Your task to perform on an android device: find which apps use the phone's location Image 0: 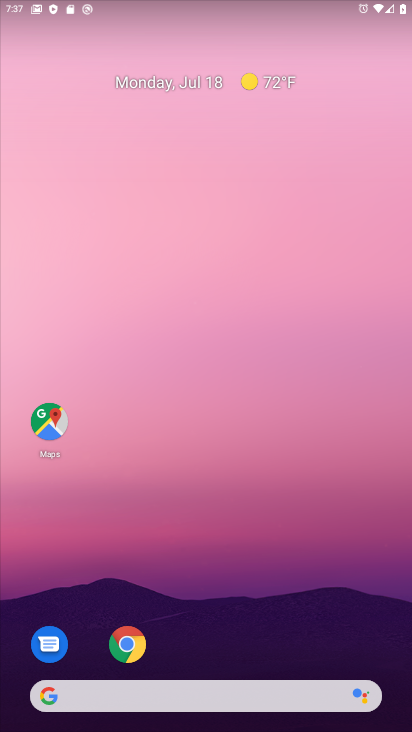
Step 0: drag from (336, 648) to (230, 51)
Your task to perform on an android device: find which apps use the phone's location Image 1: 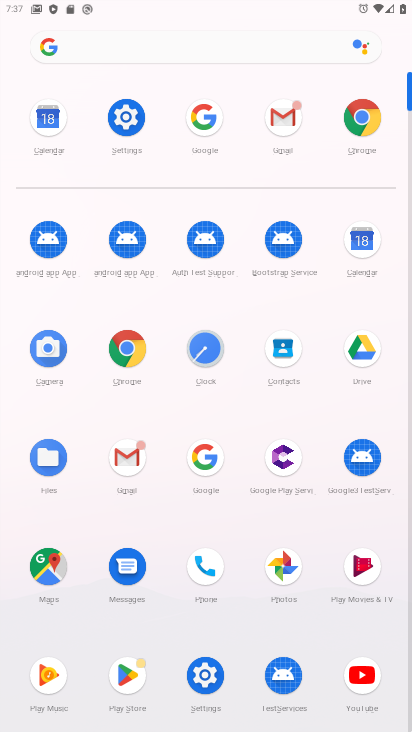
Step 1: click (206, 669)
Your task to perform on an android device: find which apps use the phone's location Image 2: 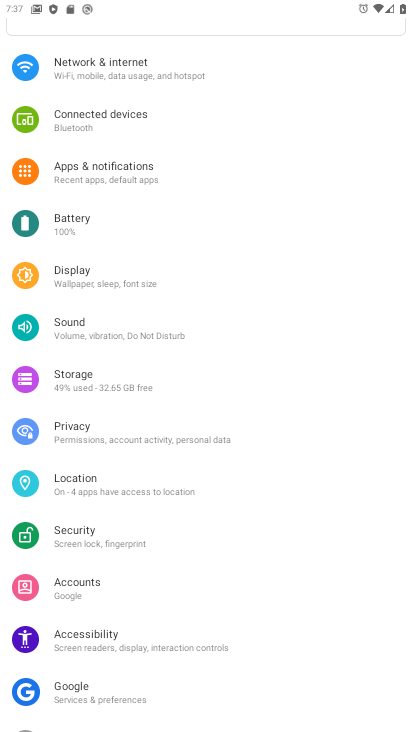
Step 2: click (98, 481)
Your task to perform on an android device: find which apps use the phone's location Image 3: 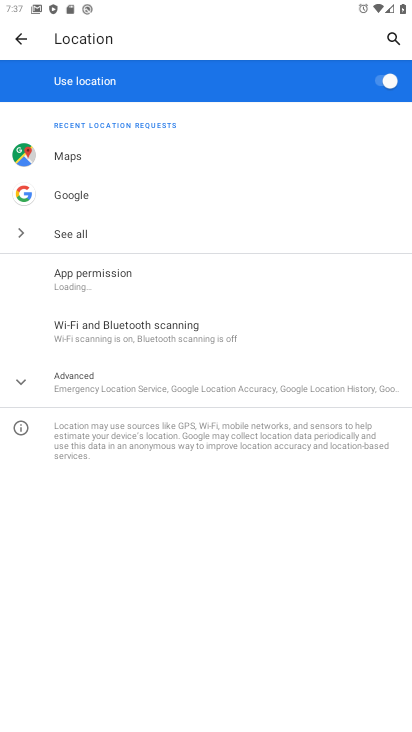
Step 3: click (84, 288)
Your task to perform on an android device: find which apps use the phone's location Image 4: 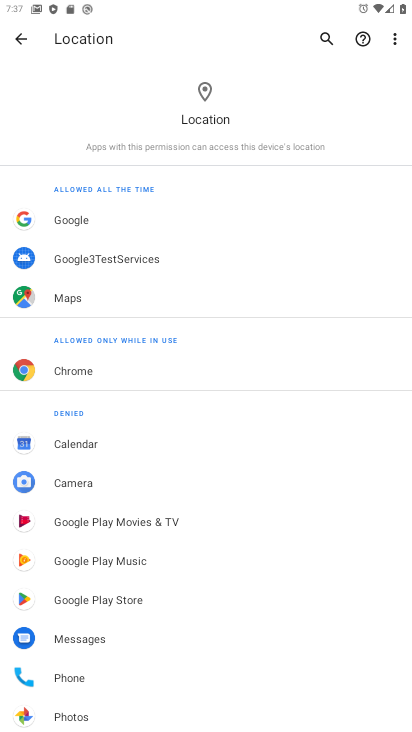
Step 4: click (84, 685)
Your task to perform on an android device: find which apps use the phone's location Image 5: 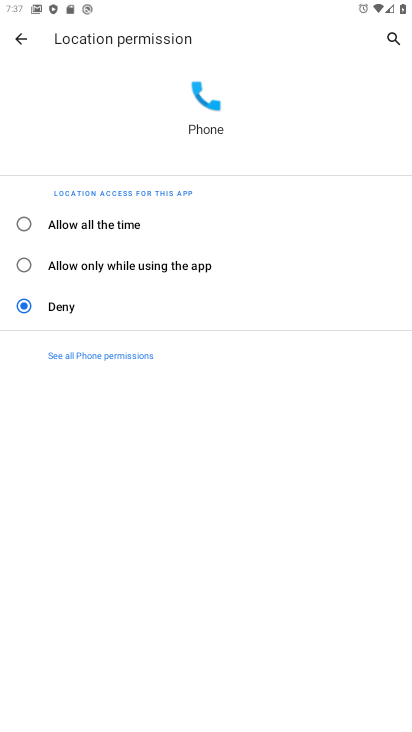
Step 5: click (26, 227)
Your task to perform on an android device: find which apps use the phone's location Image 6: 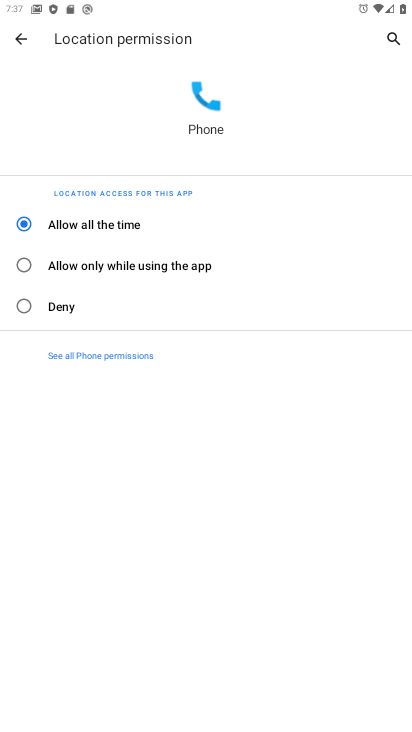
Step 6: task complete